Your task to perform on an android device: check the backup settings in the google photos Image 0: 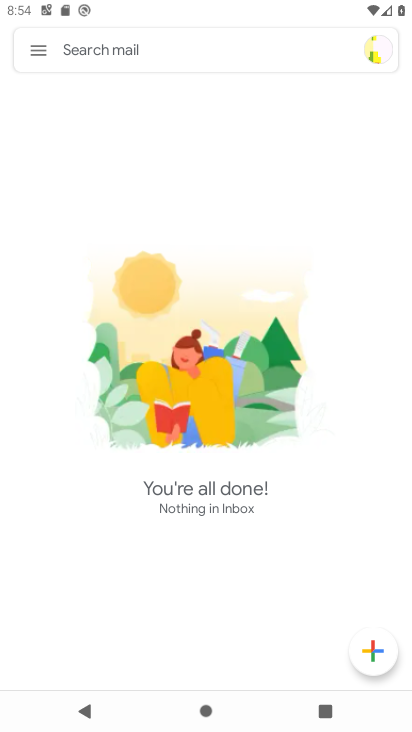
Step 0: press home button
Your task to perform on an android device: check the backup settings in the google photos Image 1: 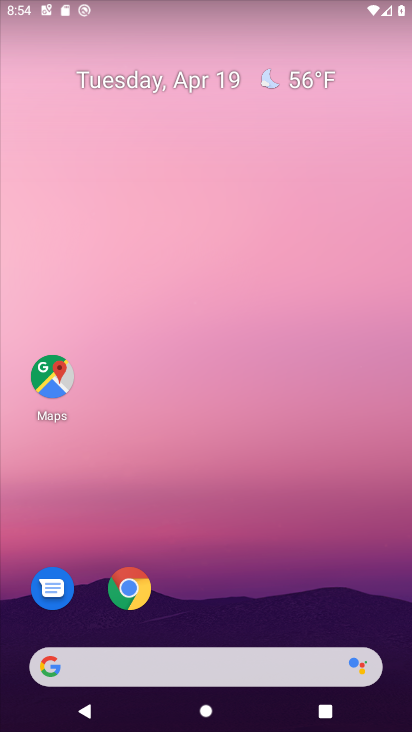
Step 1: drag from (217, 628) to (247, 103)
Your task to perform on an android device: check the backup settings in the google photos Image 2: 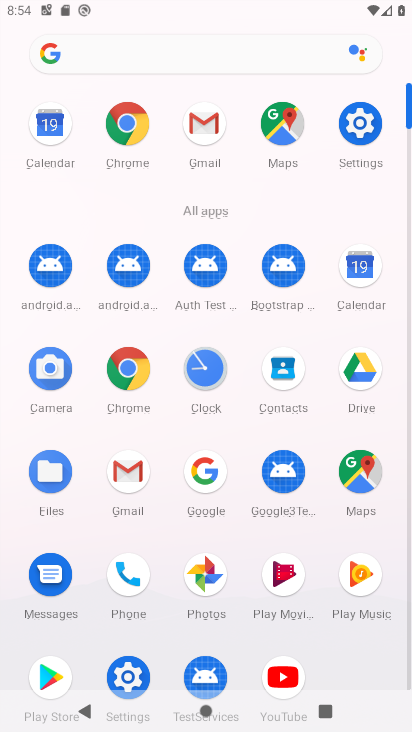
Step 2: click (199, 566)
Your task to perform on an android device: check the backup settings in the google photos Image 3: 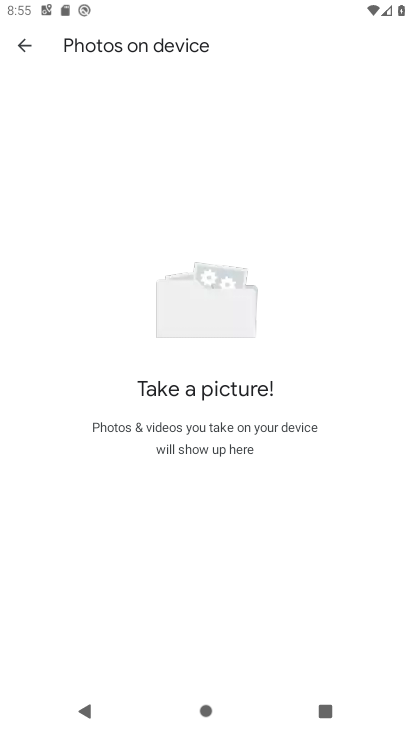
Step 3: click (25, 43)
Your task to perform on an android device: check the backup settings in the google photos Image 4: 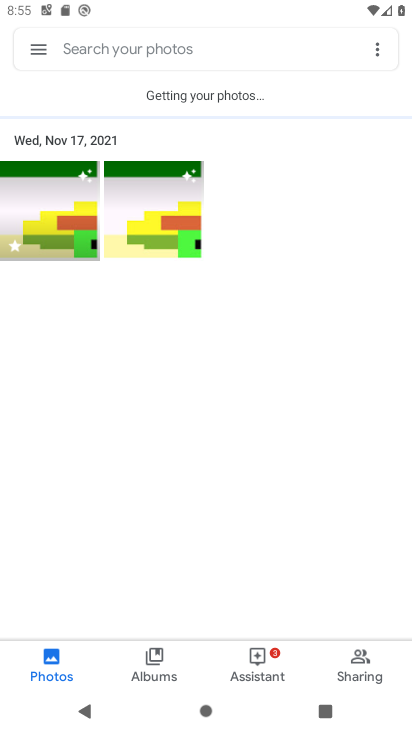
Step 4: click (32, 45)
Your task to perform on an android device: check the backup settings in the google photos Image 5: 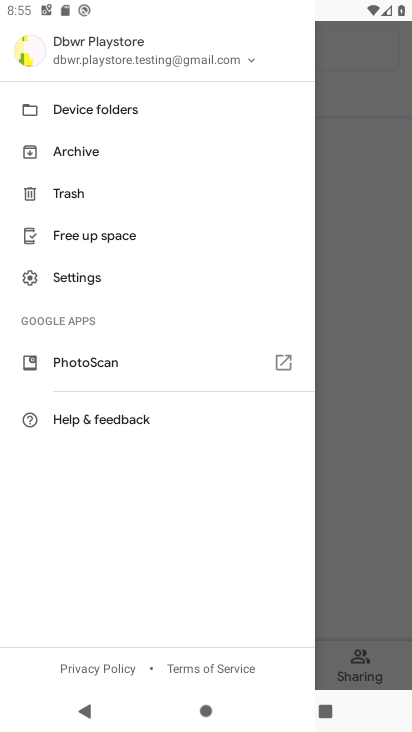
Step 5: click (111, 276)
Your task to perform on an android device: check the backup settings in the google photos Image 6: 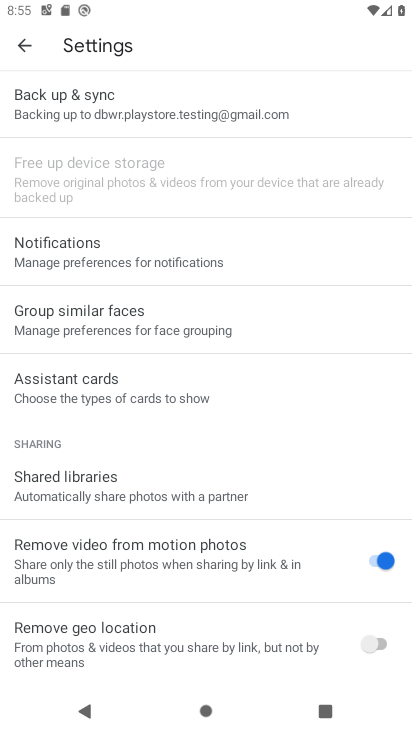
Step 6: click (133, 102)
Your task to perform on an android device: check the backup settings in the google photos Image 7: 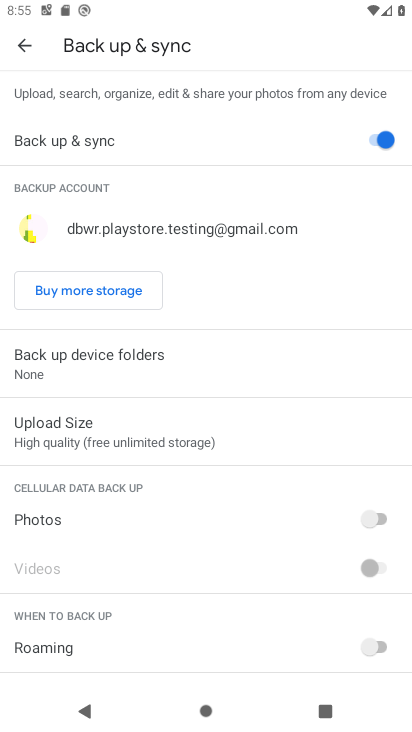
Step 7: task complete